Your task to perform on an android device: Open the web browser Image 0: 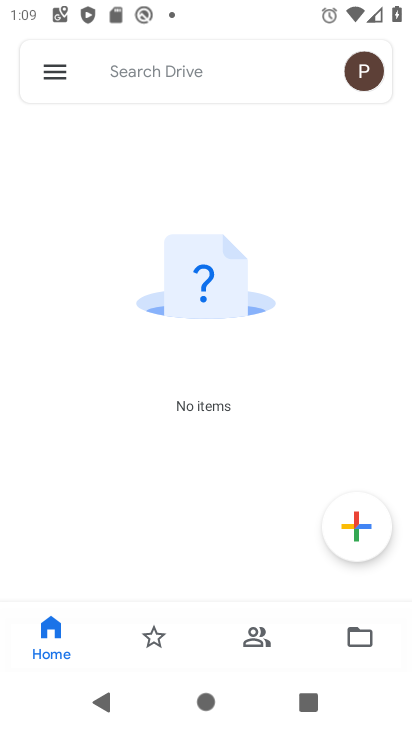
Step 0: press home button
Your task to perform on an android device: Open the web browser Image 1: 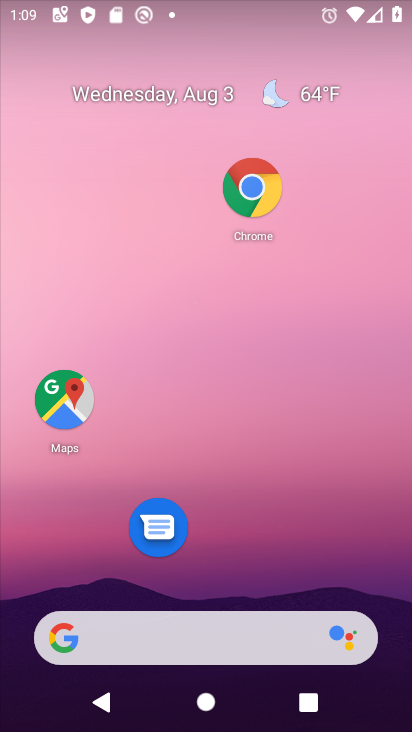
Step 1: click (270, 186)
Your task to perform on an android device: Open the web browser Image 2: 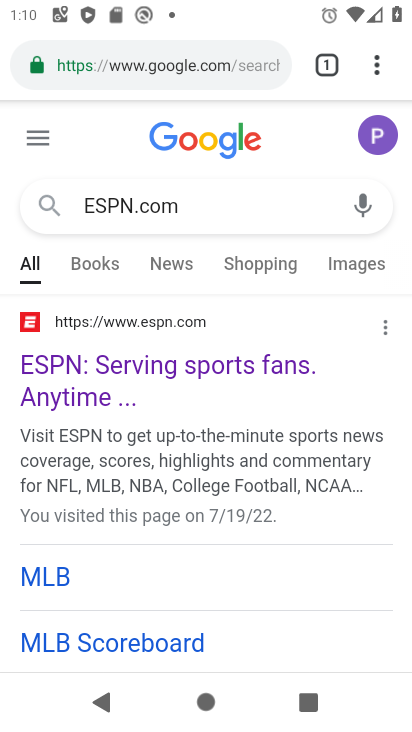
Step 2: task complete